Your task to perform on an android device: set an alarm Image 0: 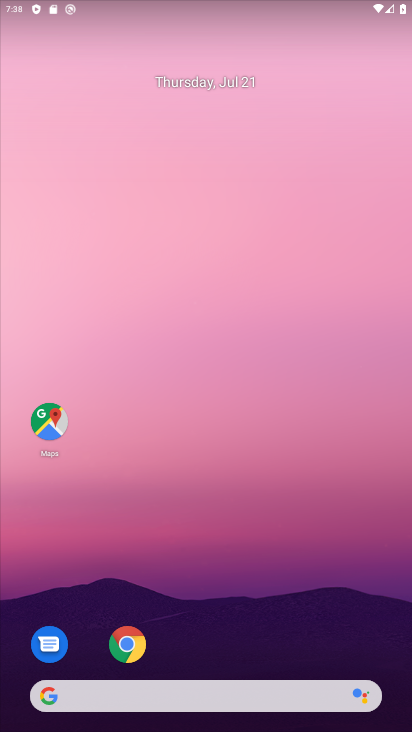
Step 0: drag from (316, 599) to (348, 107)
Your task to perform on an android device: set an alarm Image 1: 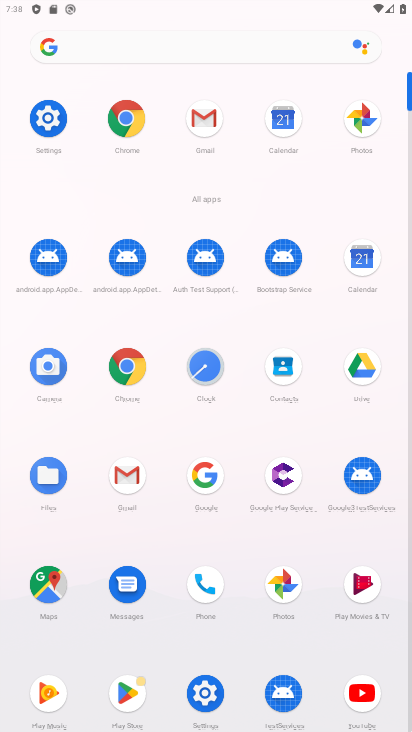
Step 1: click (208, 370)
Your task to perform on an android device: set an alarm Image 2: 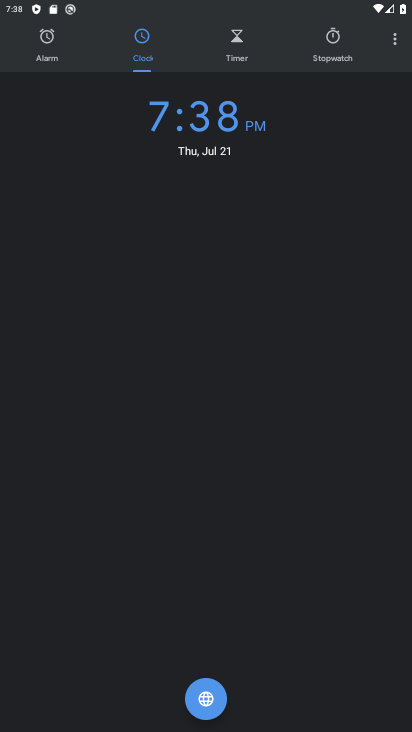
Step 2: click (48, 50)
Your task to perform on an android device: set an alarm Image 3: 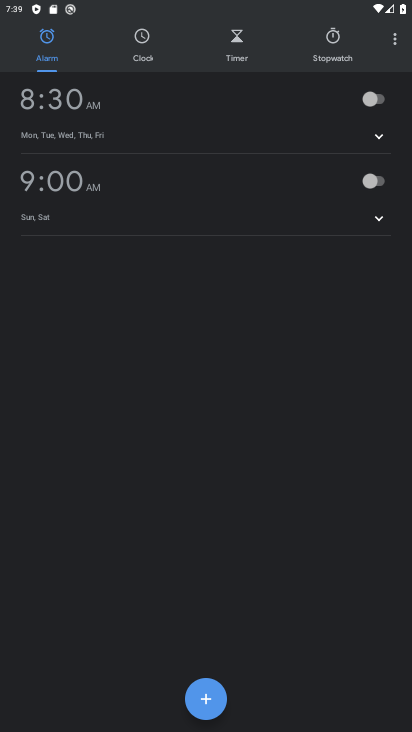
Step 3: click (205, 709)
Your task to perform on an android device: set an alarm Image 4: 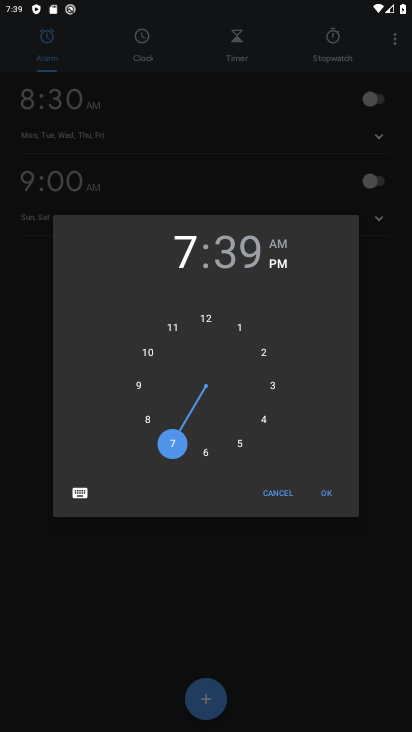
Step 4: click (325, 503)
Your task to perform on an android device: set an alarm Image 5: 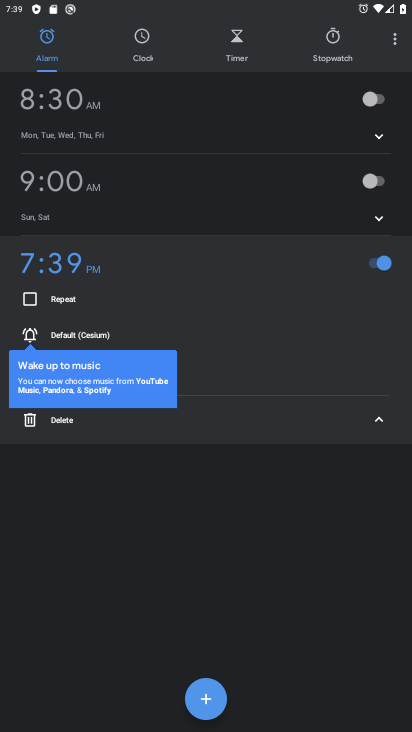
Step 5: task complete